Your task to perform on an android device: Turn off the flashlight Image 0: 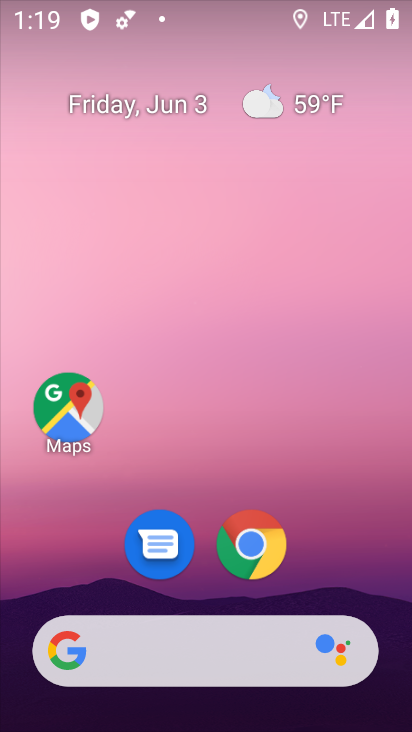
Step 0: drag from (218, 601) to (168, 53)
Your task to perform on an android device: Turn off the flashlight Image 1: 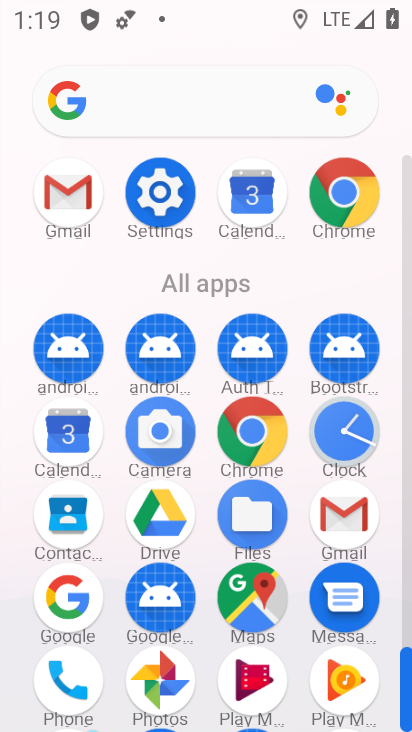
Step 1: click (167, 217)
Your task to perform on an android device: Turn off the flashlight Image 2: 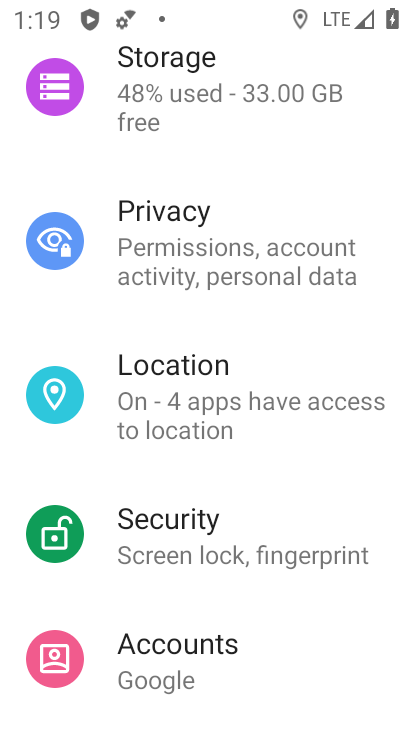
Step 2: drag from (183, 170) to (175, 607)
Your task to perform on an android device: Turn off the flashlight Image 3: 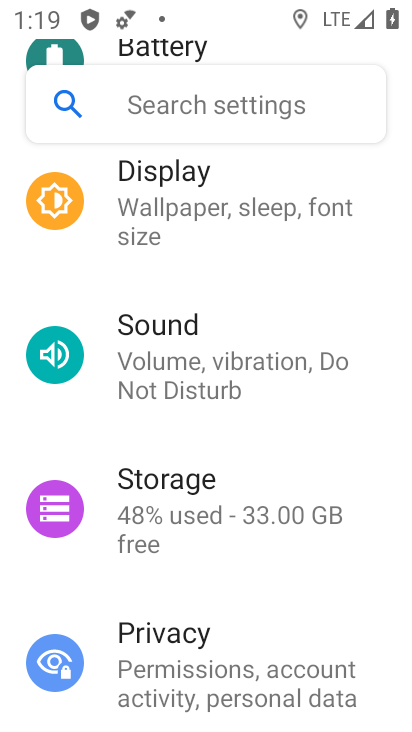
Step 3: click (143, 229)
Your task to perform on an android device: Turn off the flashlight Image 4: 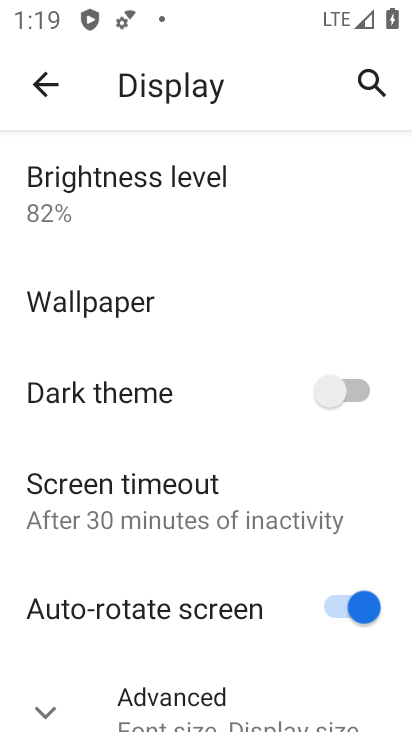
Step 4: task complete